Your task to perform on an android device: toggle priority inbox in the gmail app Image 0: 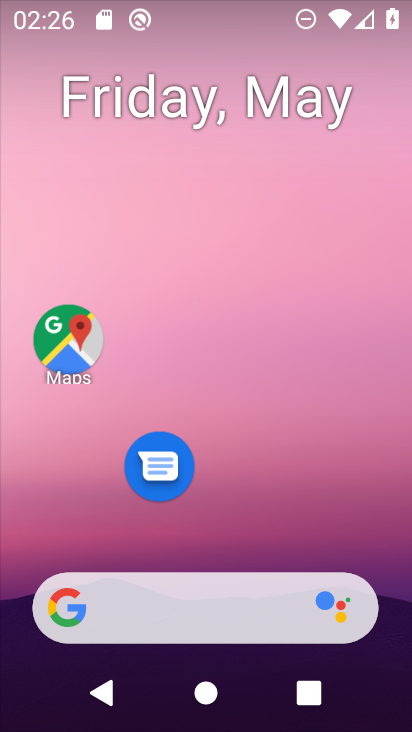
Step 0: drag from (343, 489) to (212, 22)
Your task to perform on an android device: toggle priority inbox in the gmail app Image 1: 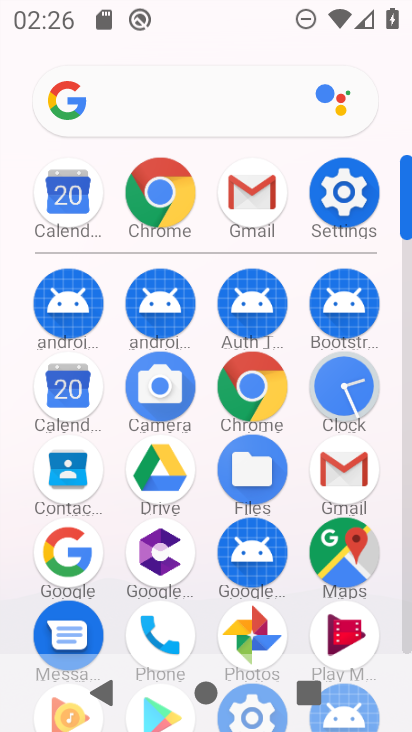
Step 1: click (274, 208)
Your task to perform on an android device: toggle priority inbox in the gmail app Image 2: 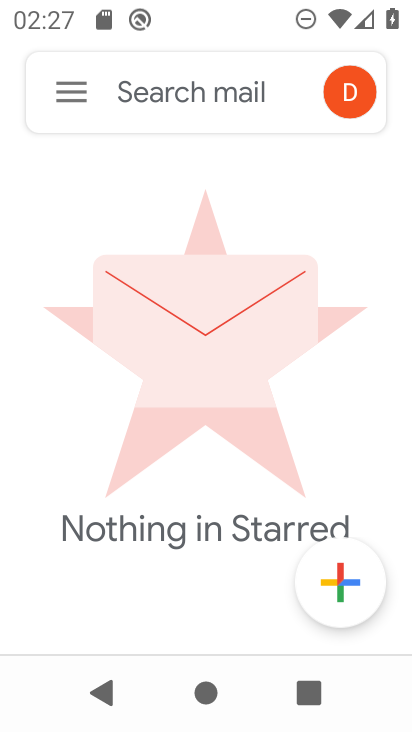
Step 2: click (45, 79)
Your task to perform on an android device: toggle priority inbox in the gmail app Image 3: 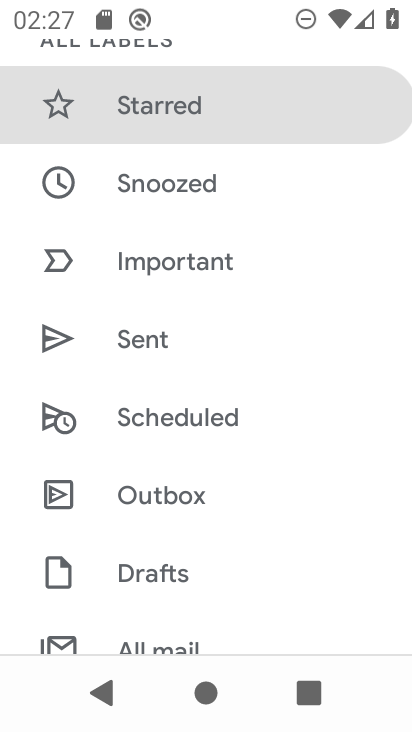
Step 3: drag from (124, 537) to (115, 223)
Your task to perform on an android device: toggle priority inbox in the gmail app Image 4: 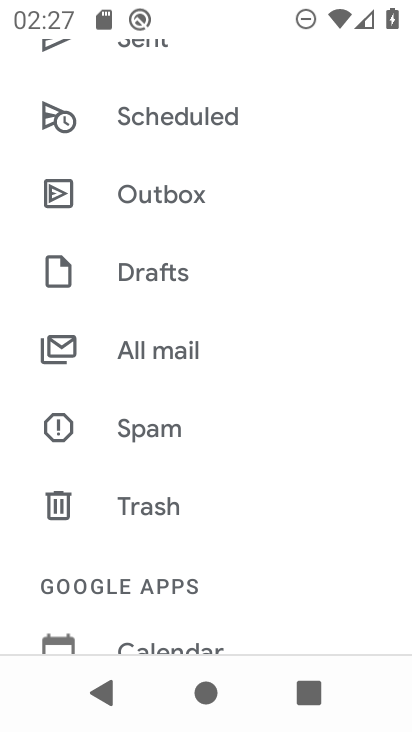
Step 4: drag from (164, 604) to (192, 187)
Your task to perform on an android device: toggle priority inbox in the gmail app Image 5: 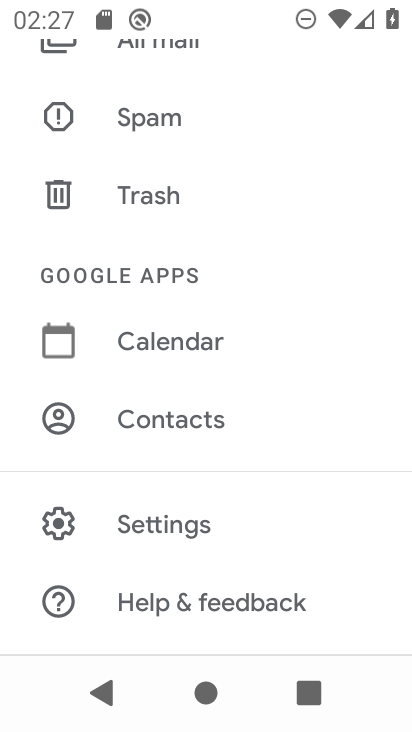
Step 5: click (213, 523)
Your task to perform on an android device: toggle priority inbox in the gmail app Image 6: 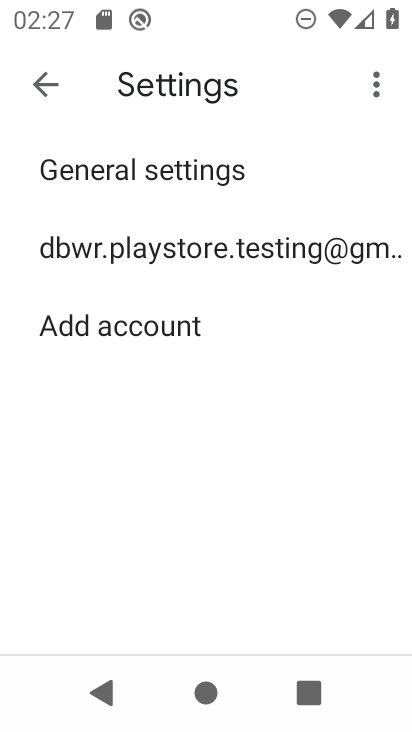
Step 6: click (182, 201)
Your task to perform on an android device: toggle priority inbox in the gmail app Image 7: 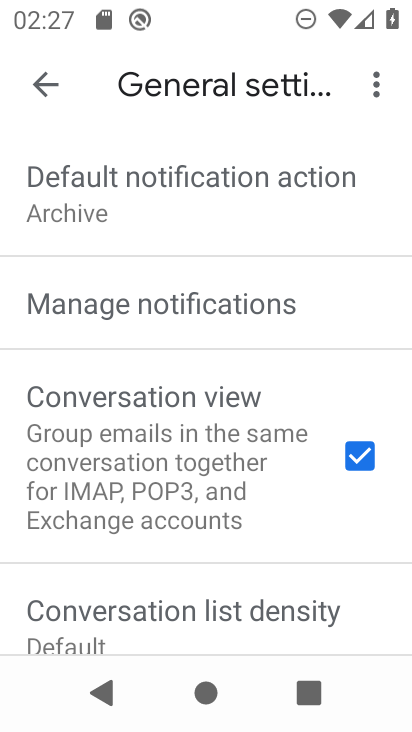
Step 7: task complete